Your task to perform on an android device: Add "alienware area 51" to the cart on amazon, then select checkout. Image 0: 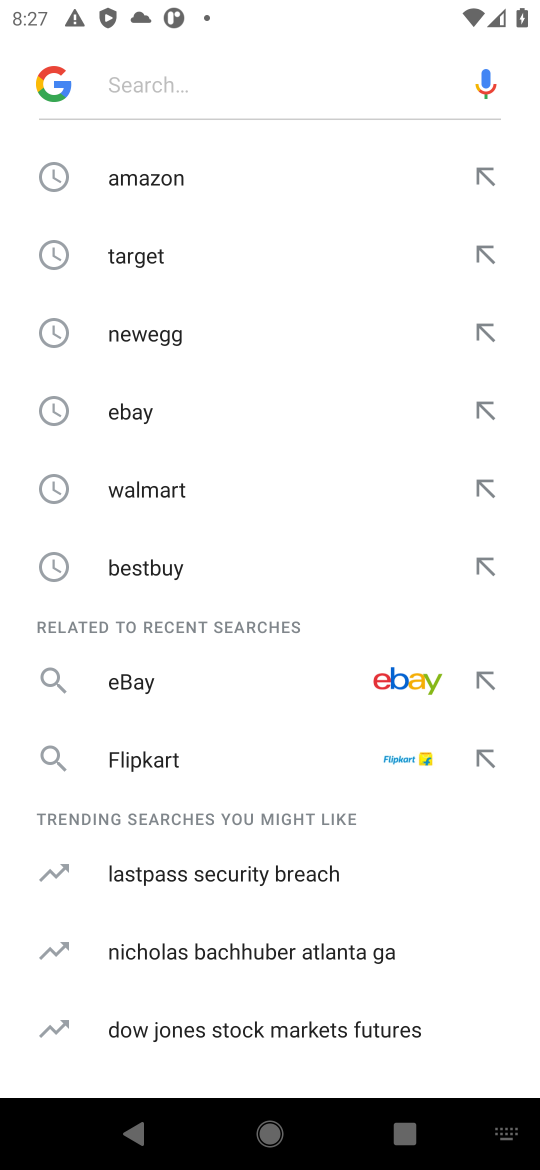
Step 0: click (153, 194)
Your task to perform on an android device: Add "alienware area 51" to the cart on amazon, then select checkout. Image 1: 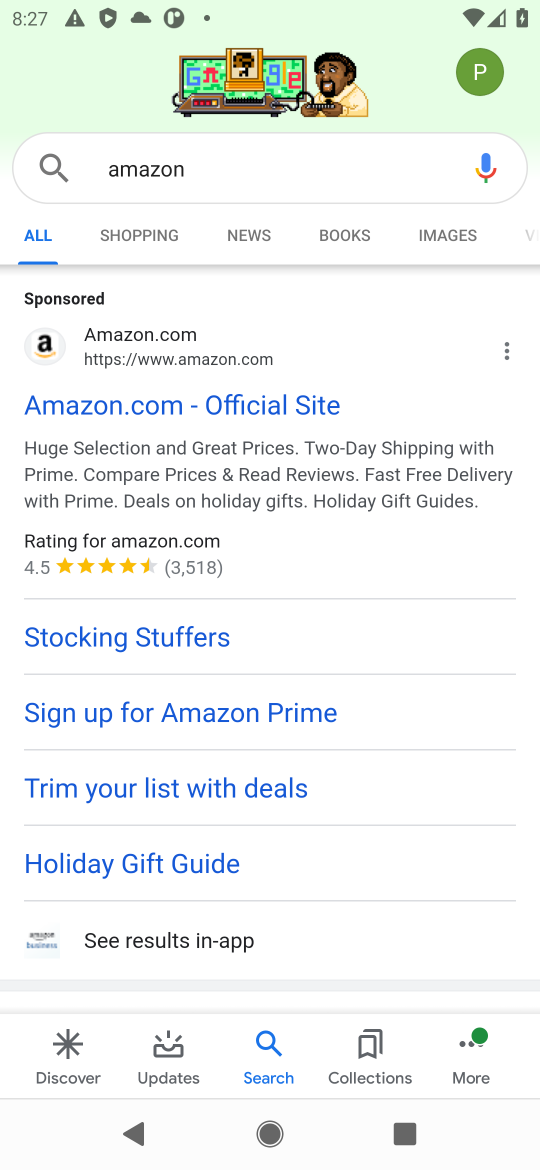
Step 1: click (171, 398)
Your task to perform on an android device: Add "alienware area 51" to the cart on amazon, then select checkout. Image 2: 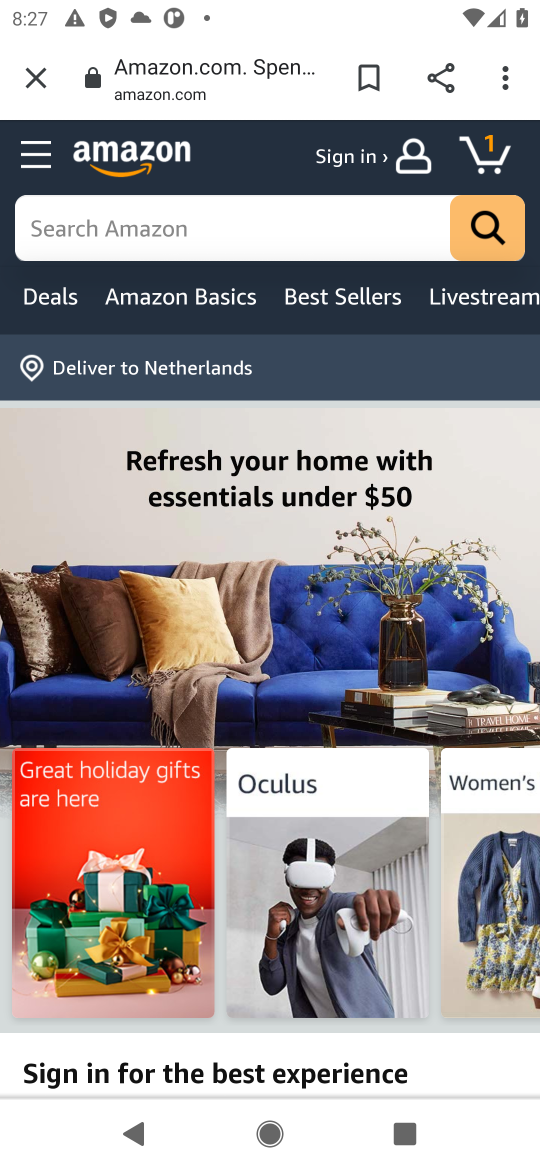
Step 2: click (93, 218)
Your task to perform on an android device: Add "alienware area 51" to the cart on amazon, then select checkout. Image 3: 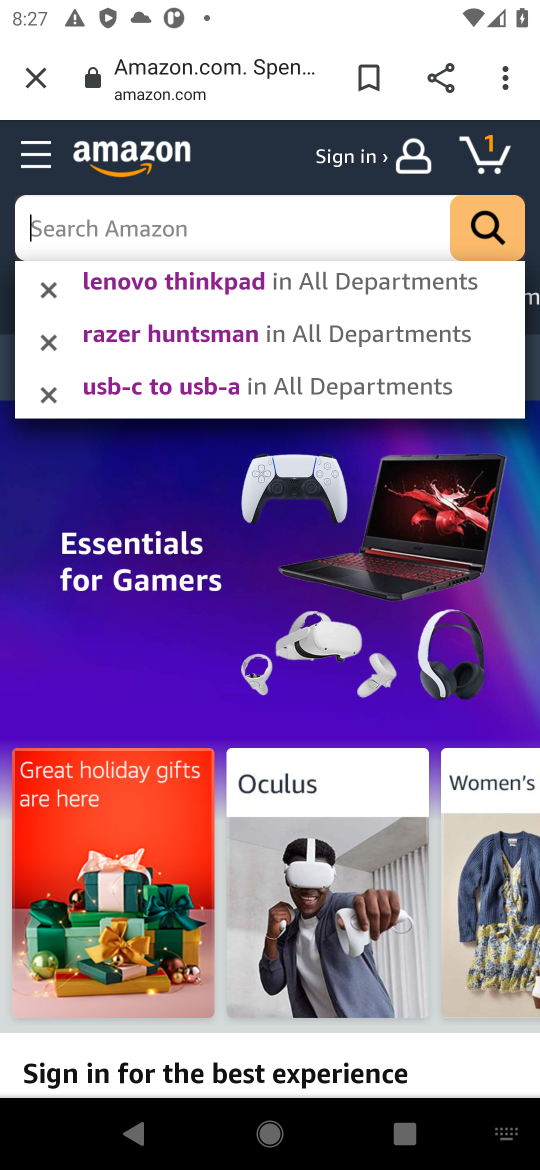
Step 3: type "alienwae area51"
Your task to perform on an android device: Add "alienware area 51" to the cart on amazon, then select checkout. Image 4: 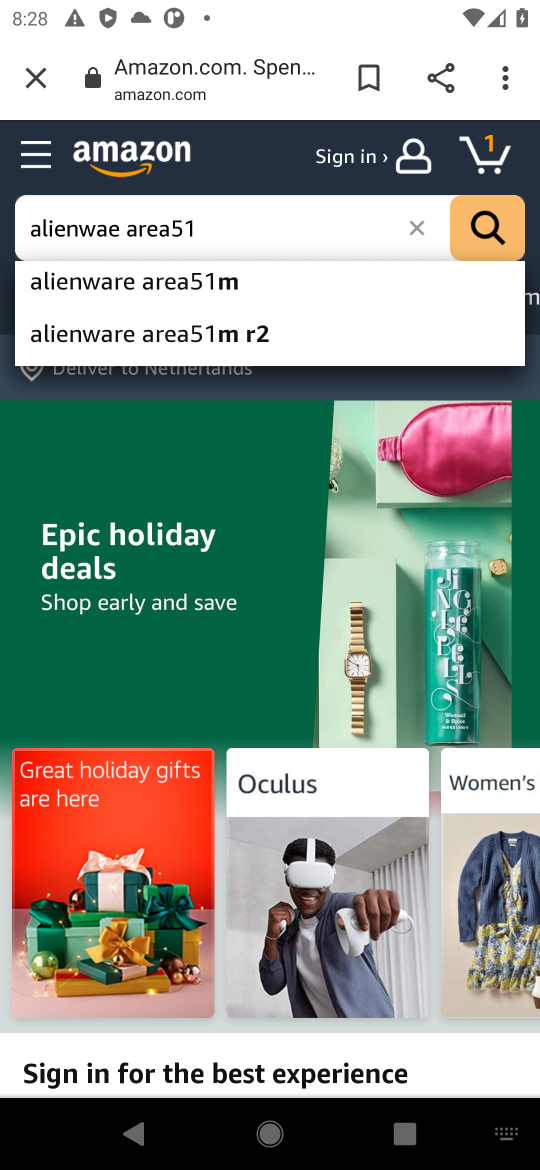
Step 4: click (194, 264)
Your task to perform on an android device: Add "alienware area 51" to the cart on amazon, then select checkout. Image 5: 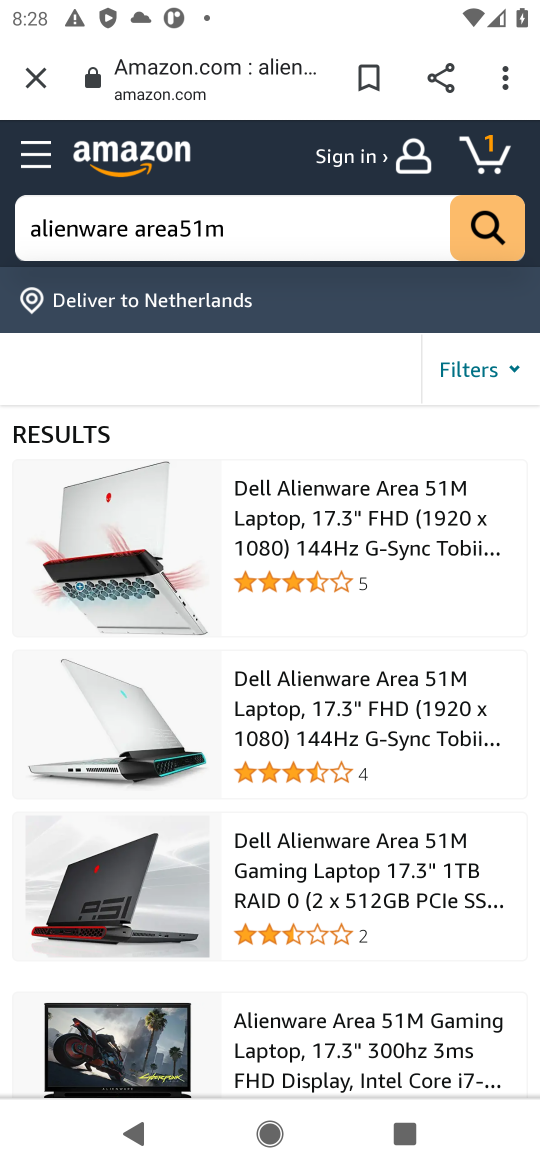
Step 5: click (402, 499)
Your task to perform on an android device: Add "alienware area 51" to the cart on amazon, then select checkout. Image 6: 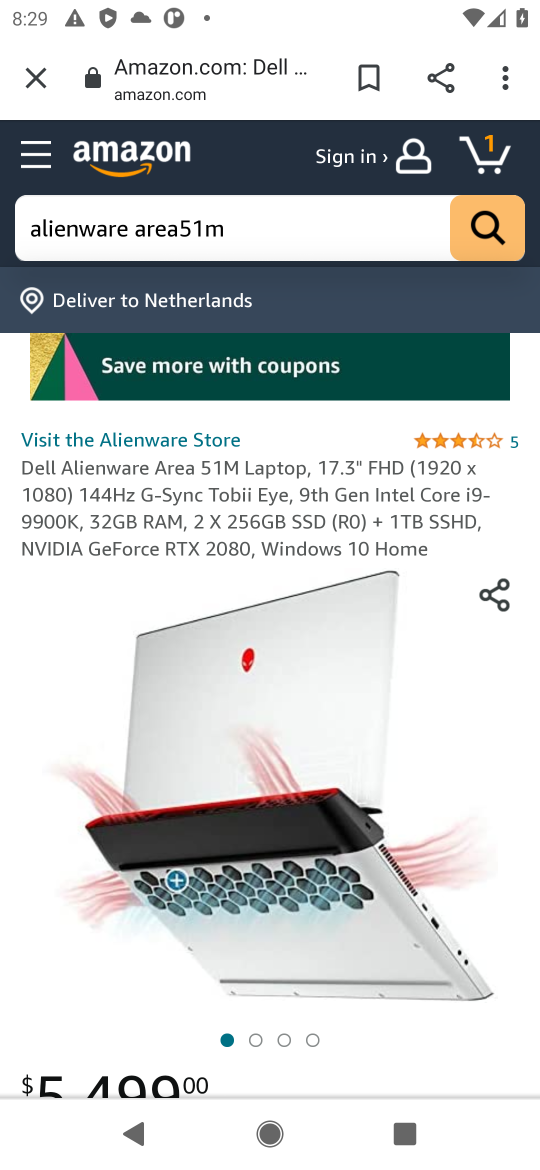
Step 6: click (277, 727)
Your task to perform on an android device: Add "alienware area 51" to the cart on amazon, then select checkout. Image 7: 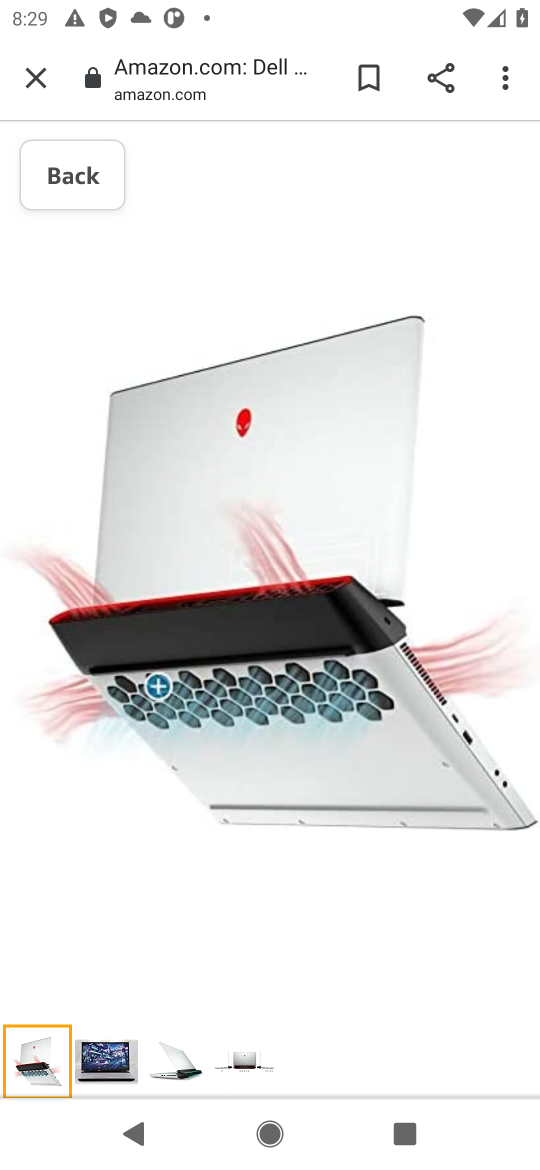
Step 7: task complete